Your task to perform on an android device: Find coffee shops on Maps Image 0: 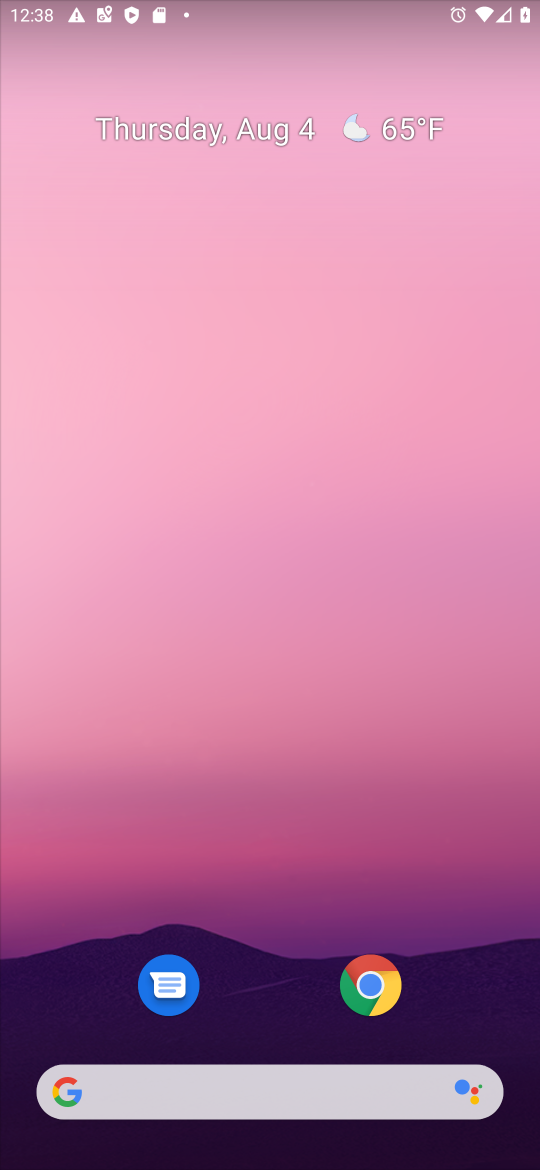
Step 0: drag from (284, 891) to (283, 277)
Your task to perform on an android device: Find coffee shops on Maps Image 1: 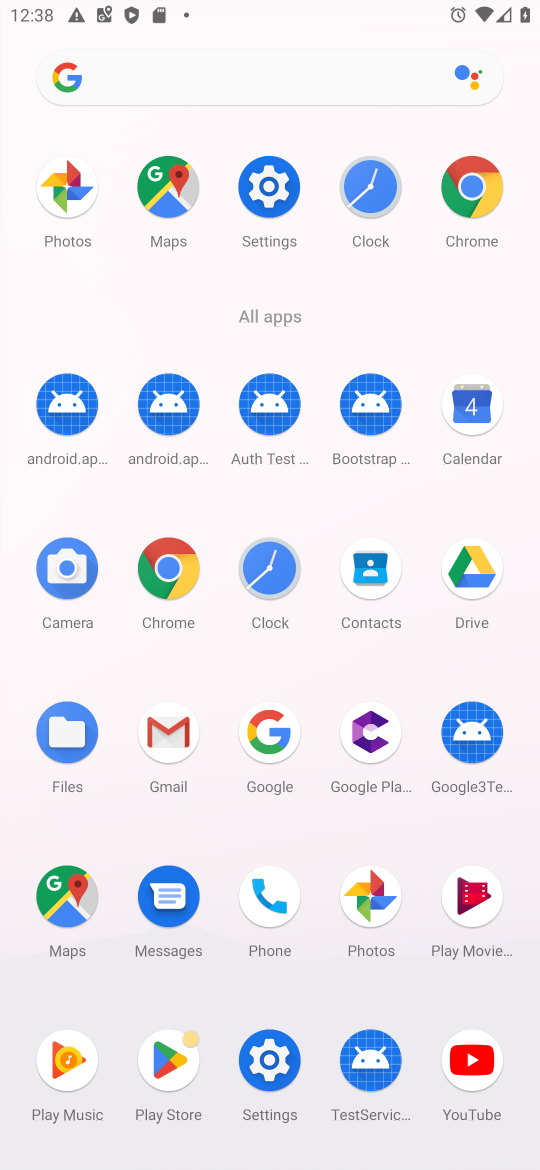
Step 1: click (169, 184)
Your task to perform on an android device: Find coffee shops on Maps Image 2: 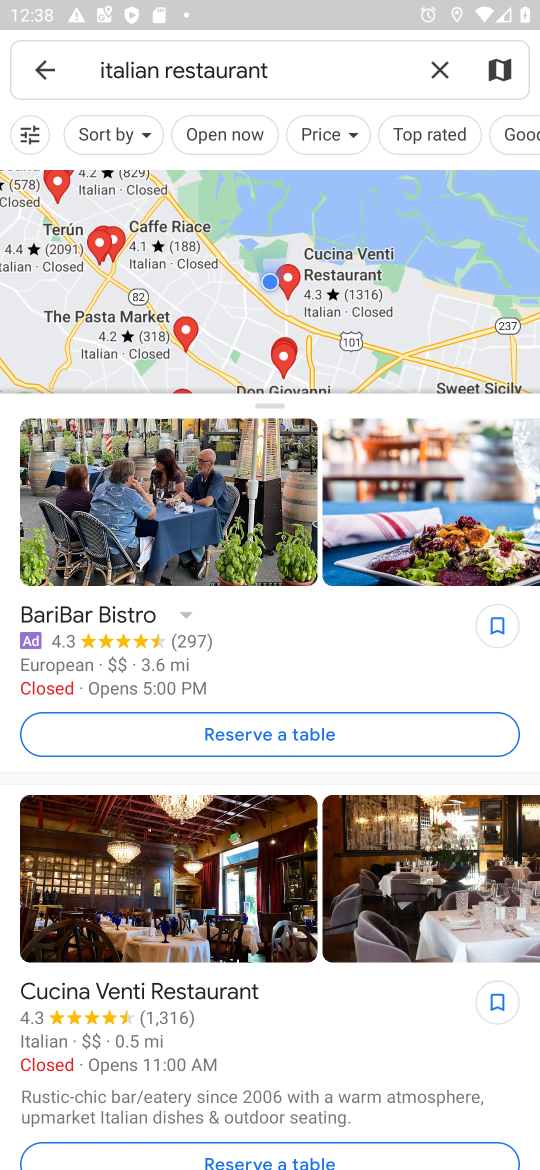
Step 2: click (435, 71)
Your task to perform on an android device: Find coffee shops on Maps Image 3: 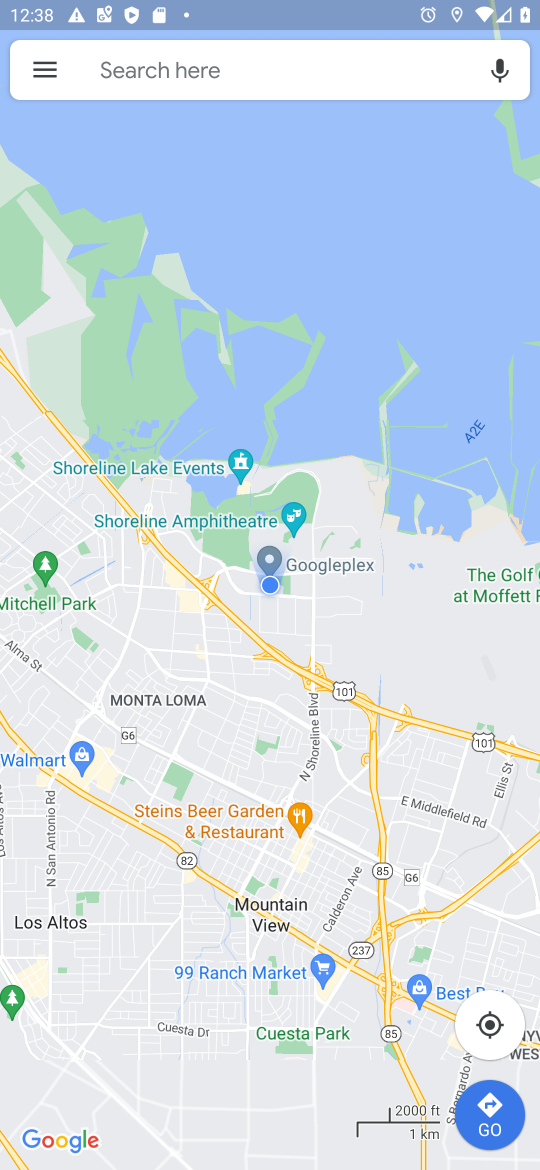
Step 3: click (175, 66)
Your task to perform on an android device: Find coffee shops on Maps Image 4: 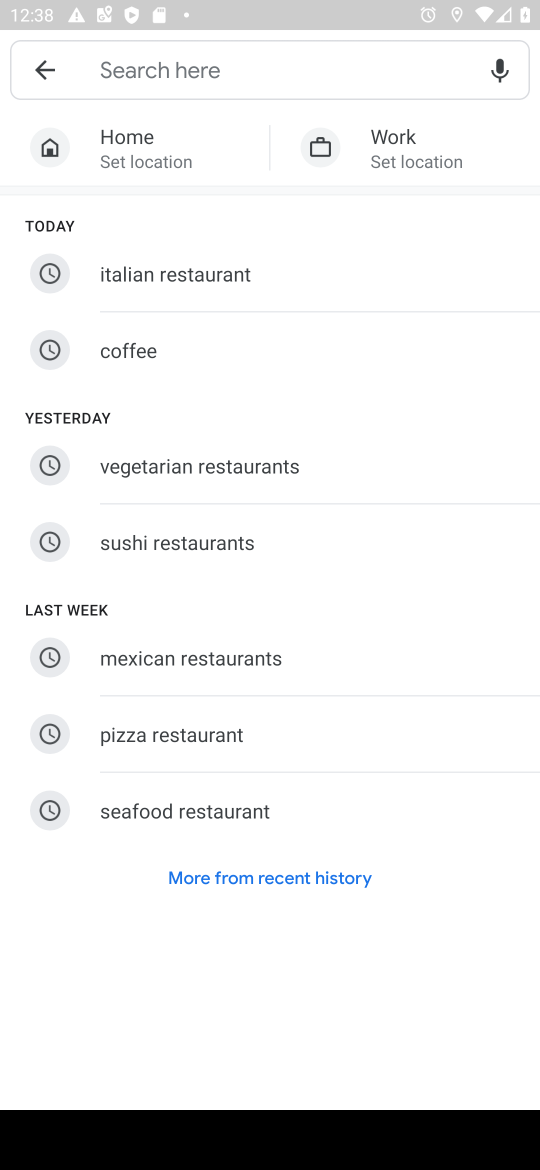
Step 4: click (120, 337)
Your task to perform on an android device: Find coffee shops on Maps Image 5: 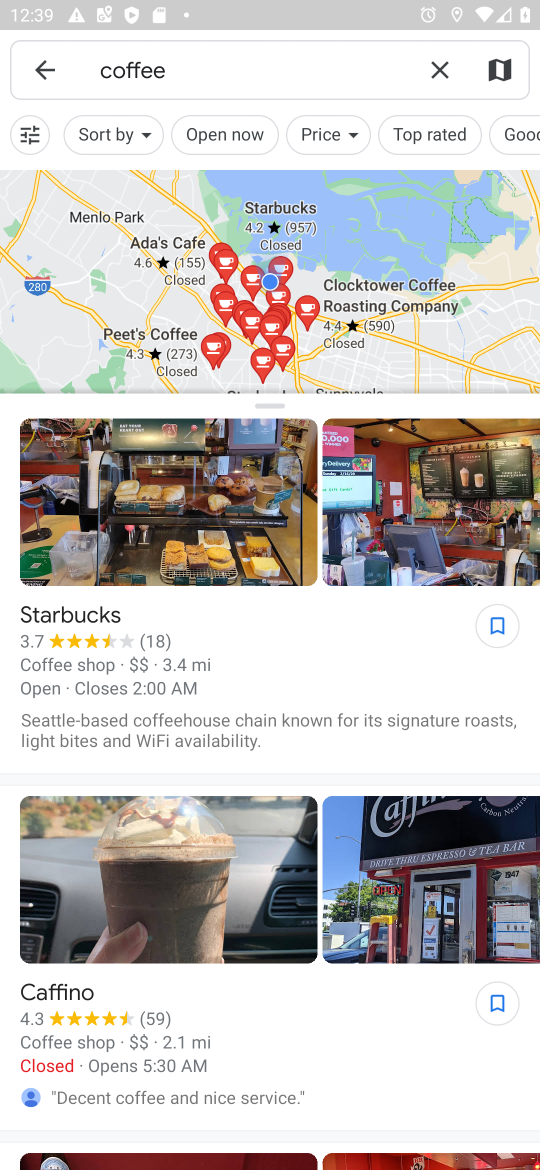
Step 5: task complete